Your task to perform on an android device: Go to Maps Image 0: 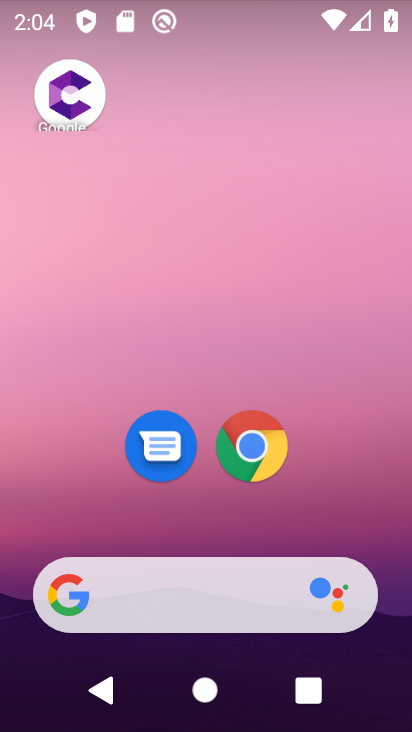
Step 0: drag from (220, 721) to (220, 115)
Your task to perform on an android device: Go to Maps Image 1: 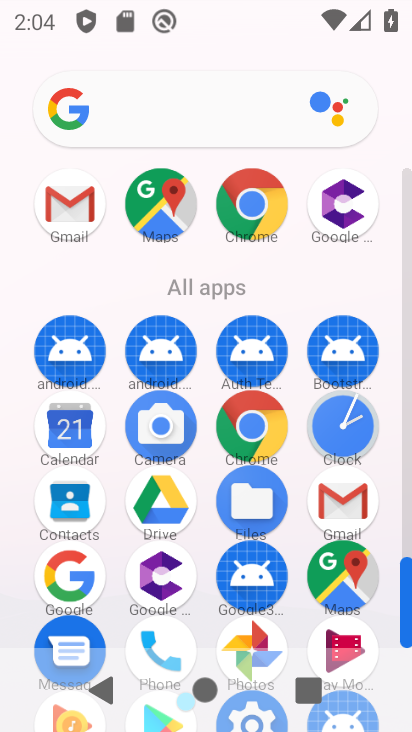
Step 1: click (167, 202)
Your task to perform on an android device: Go to Maps Image 2: 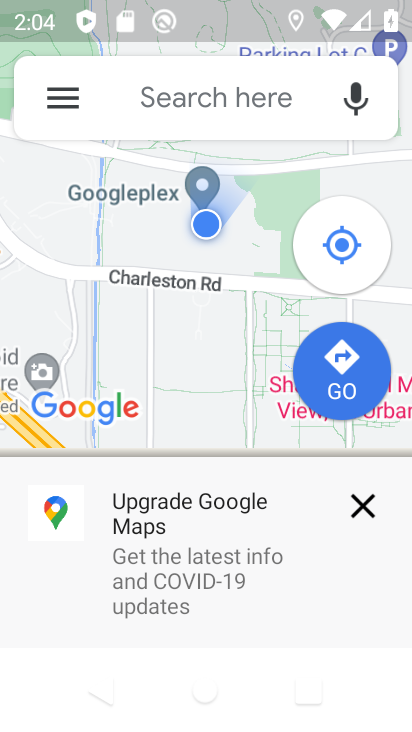
Step 2: click (225, 118)
Your task to perform on an android device: Go to Maps Image 3: 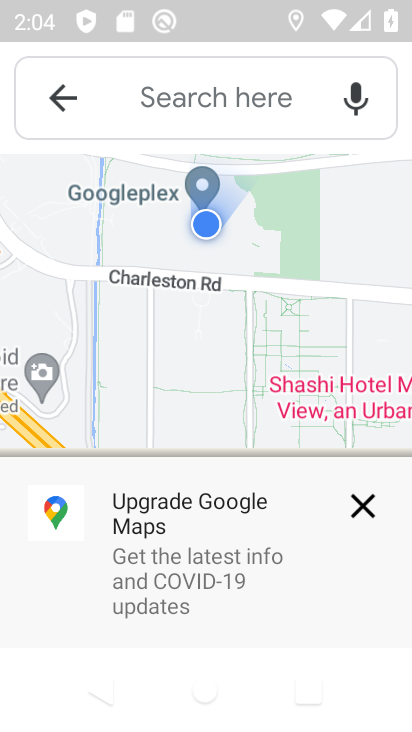
Step 3: task complete